Your task to perform on an android device: Go to notification settings Image 0: 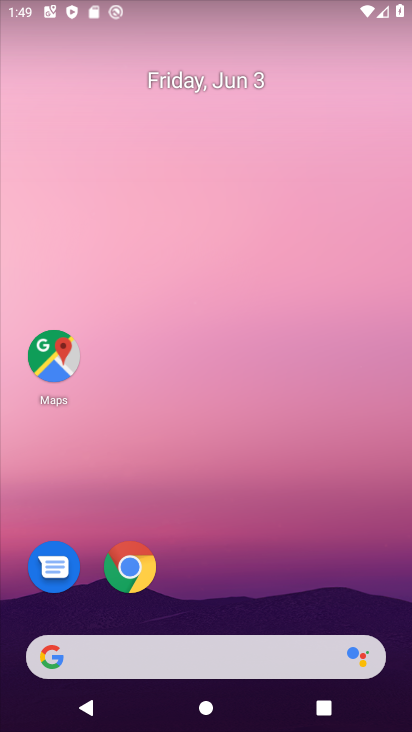
Step 0: drag from (249, 553) to (273, 65)
Your task to perform on an android device: Go to notification settings Image 1: 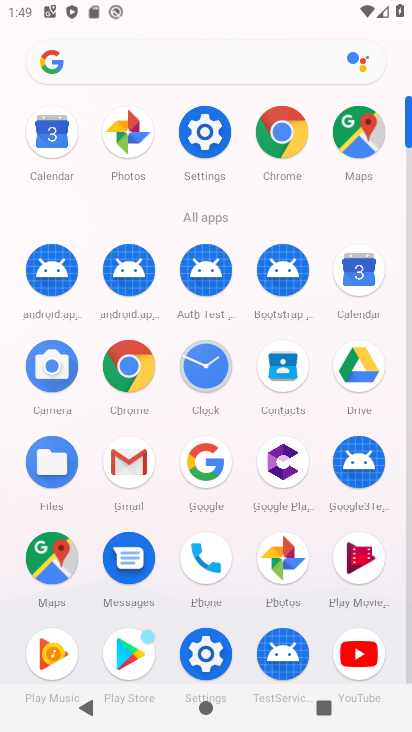
Step 1: click (203, 140)
Your task to perform on an android device: Go to notification settings Image 2: 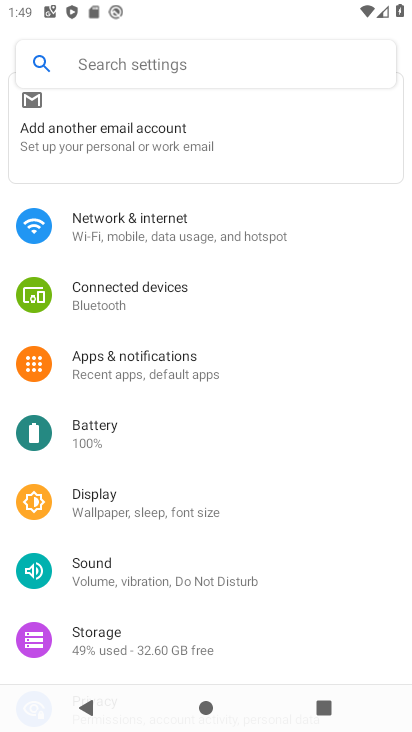
Step 2: click (145, 330)
Your task to perform on an android device: Go to notification settings Image 3: 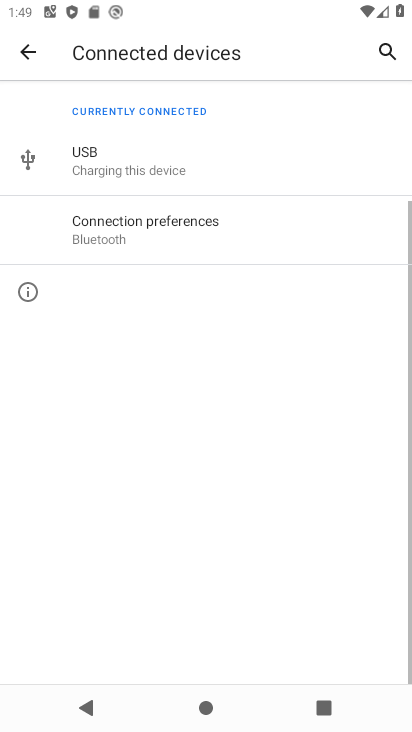
Step 3: click (12, 45)
Your task to perform on an android device: Go to notification settings Image 4: 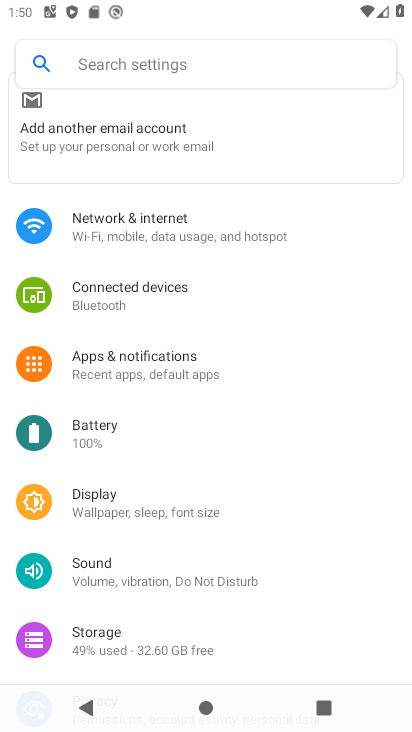
Step 4: click (167, 372)
Your task to perform on an android device: Go to notification settings Image 5: 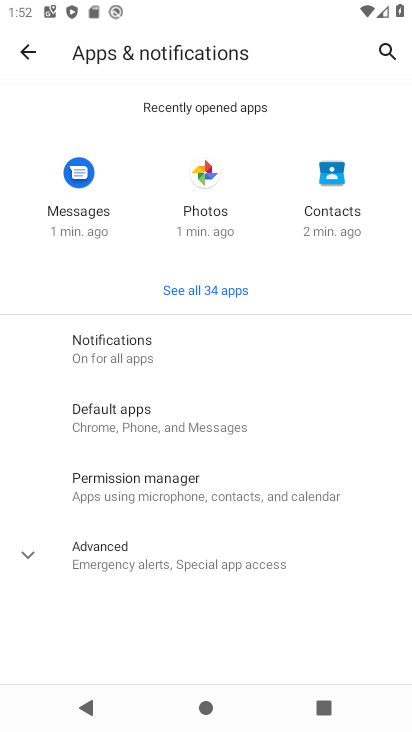
Step 5: task complete